Your task to perform on an android device: Go to ESPN.com Image 0: 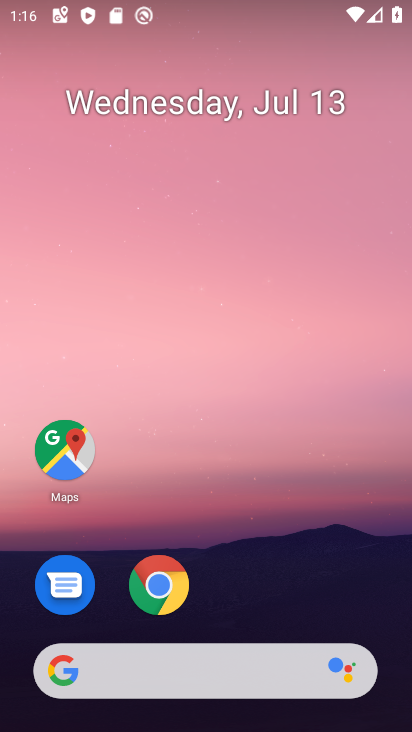
Step 0: click (160, 597)
Your task to perform on an android device: Go to ESPN.com Image 1: 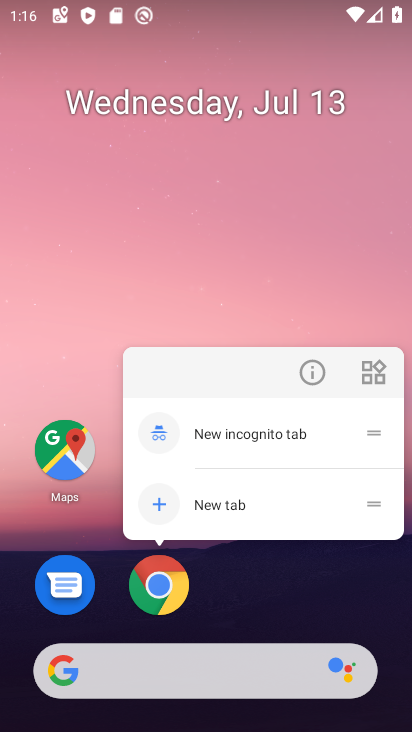
Step 1: click (163, 584)
Your task to perform on an android device: Go to ESPN.com Image 2: 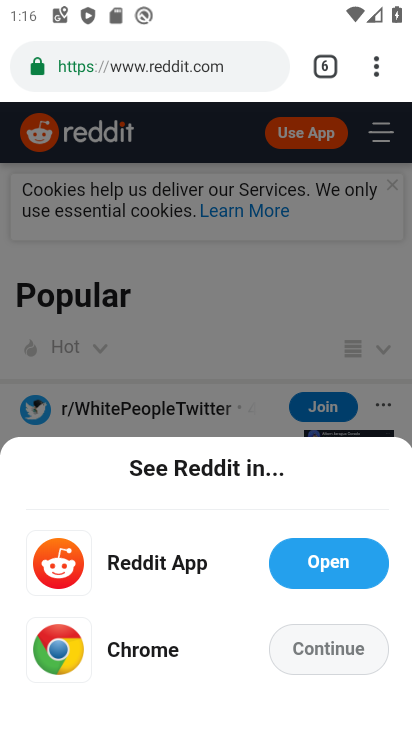
Step 2: drag from (376, 74) to (170, 122)
Your task to perform on an android device: Go to ESPN.com Image 3: 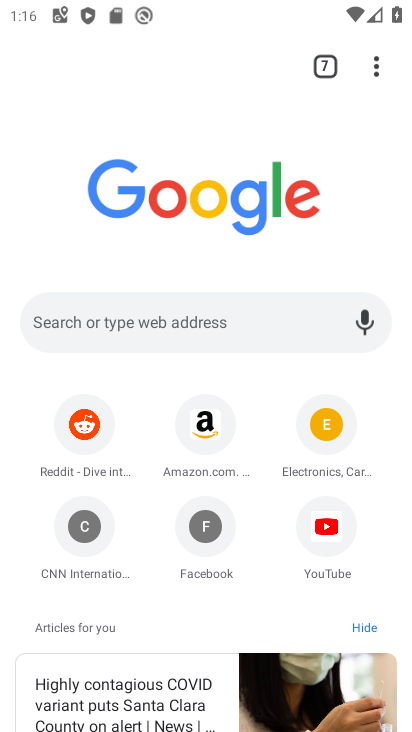
Step 3: click (187, 326)
Your task to perform on an android device: Go to ESPN.com Image 4: 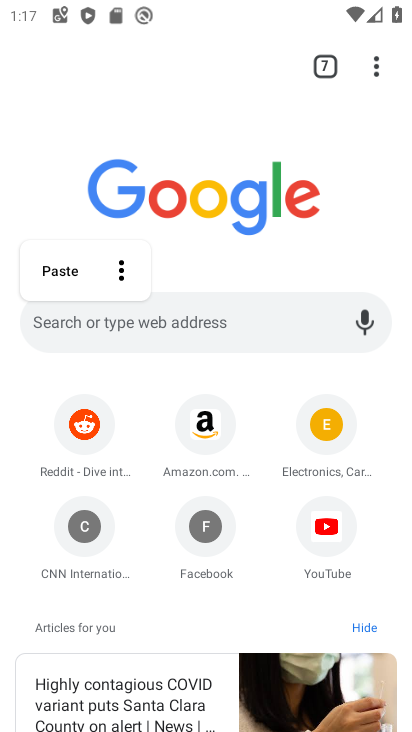
Step 4: type "espn,com"
Your task to perform on an android device: Go to ESPN.com Image 5: 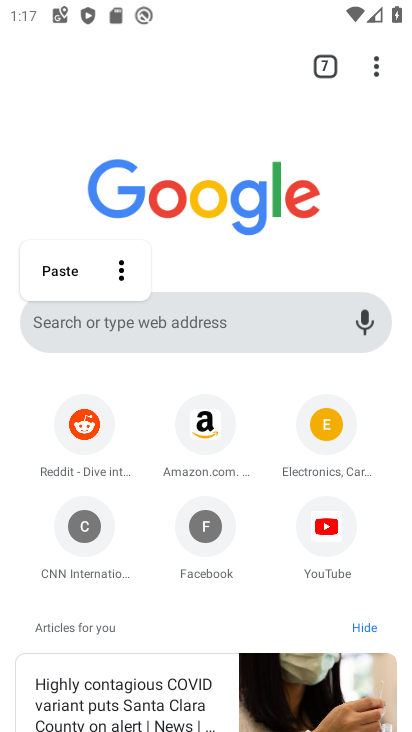
Step 5: click (131, 317)
Your task to perform on an android device: Go to ESPN.com Image 6: 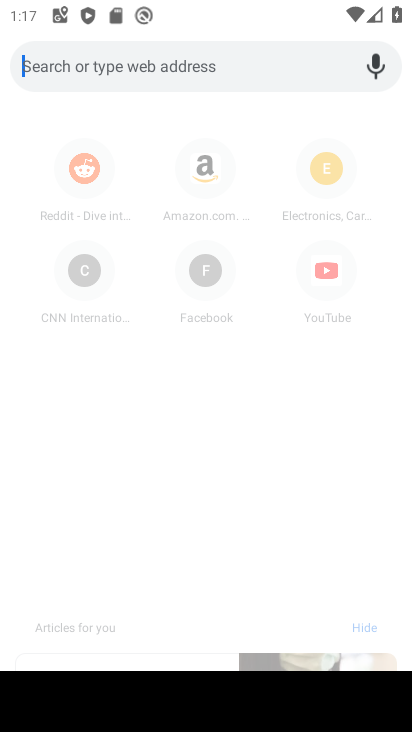
Step 6: type "espn.com"
Your task to perform on an android device: Go to ESPN.com Image 7: 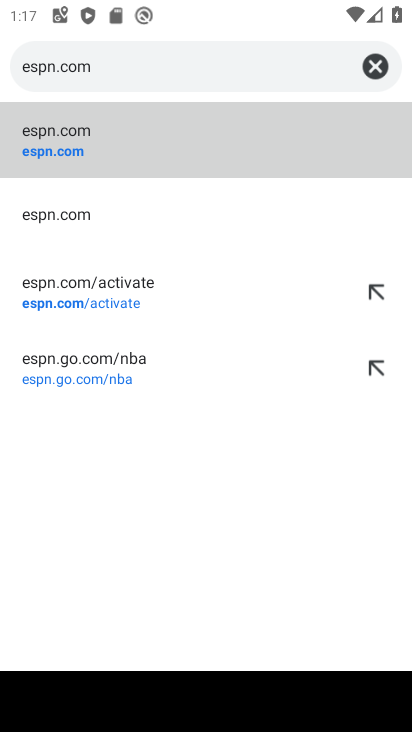
Step 7: click (145, 150)
Your task to perform on an android device: Go to ESPN.com Image 8: 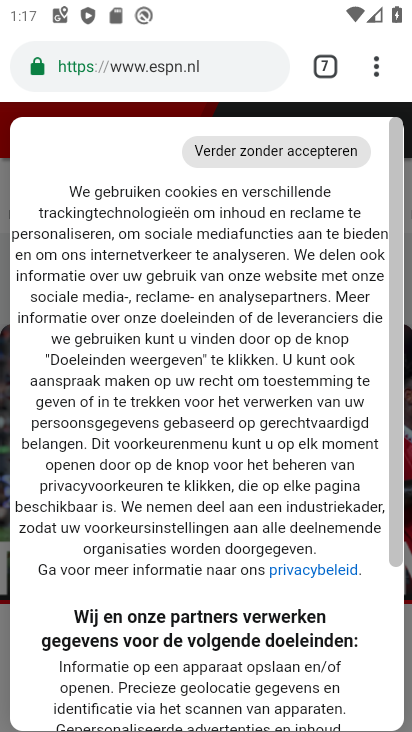
Step 8: drag from (242, 677) to (343, 162)
Your task to perform on an android device: Go to ESPN.com Image 9: 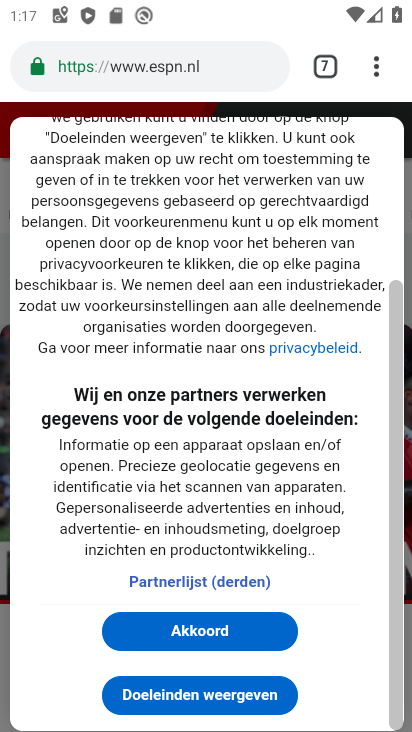
Step 9: click (199, 629)
Your task to perform on an android device: Go to ESPN.com Image 10: 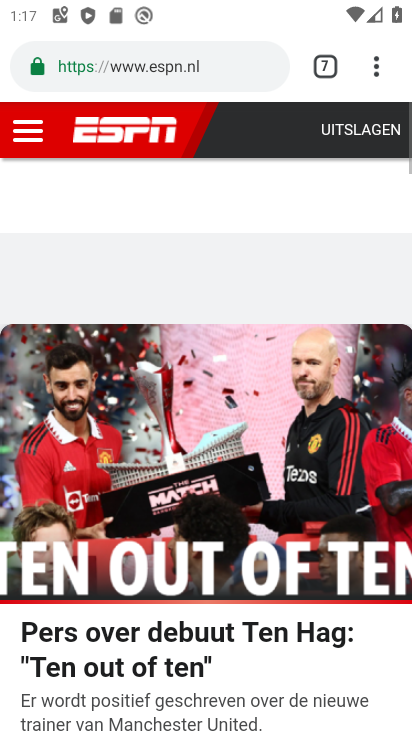
Step 10: task complete